Your task to perform on an android device: uninstall "Messenger Lite" Image 0: 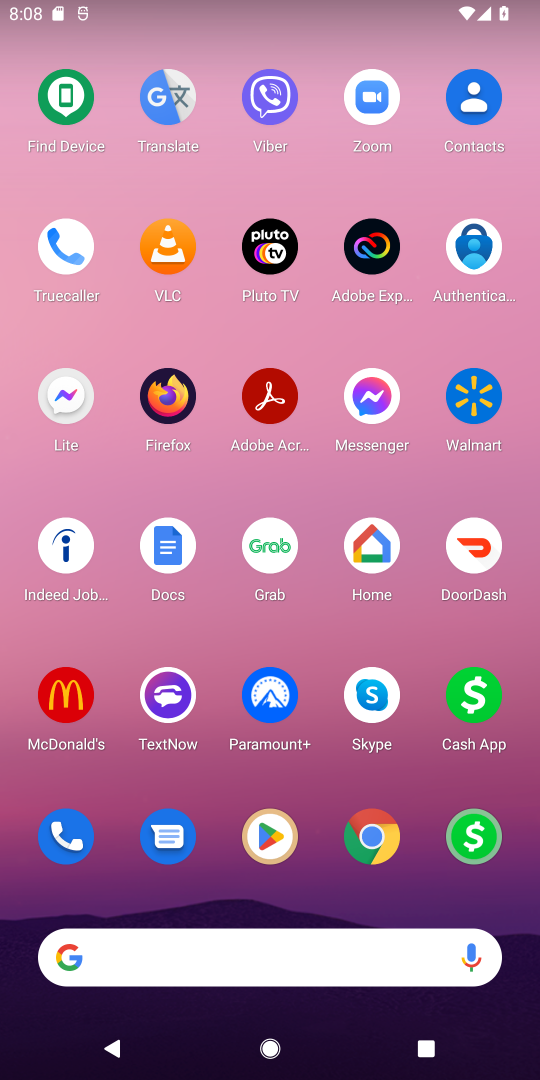
Step 0: press home button
Your task to perform on an android device: uninstall "Messenger Lite" Image 1: 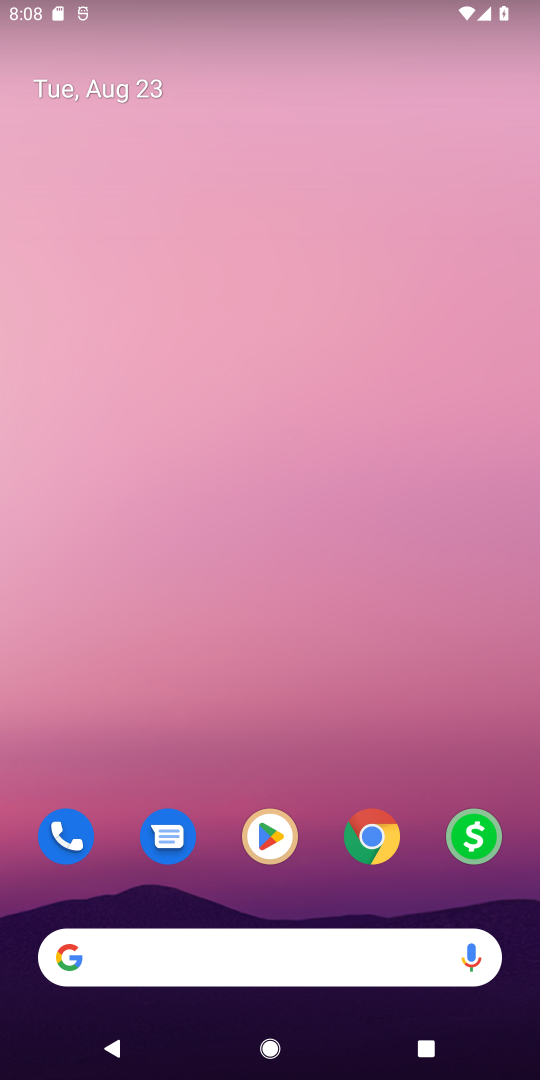
Step 1: click (274, 843)
Your task to perform on an android device: uninstall "Messenger Lite" Image 2: 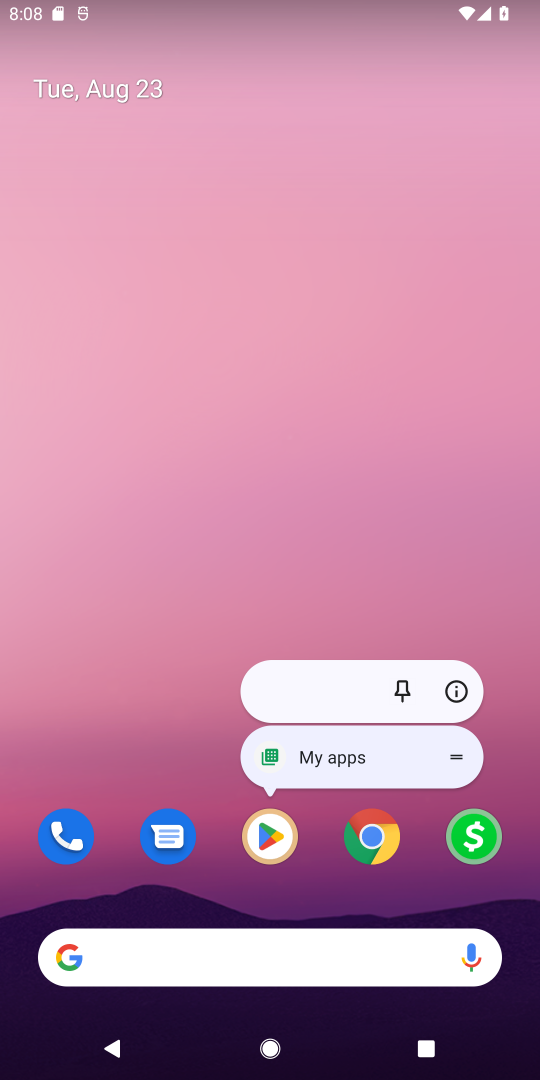
Step 2: click (274, 843)
Your task to perform on an android device: uninstall "Messenger Lite" Image 3: 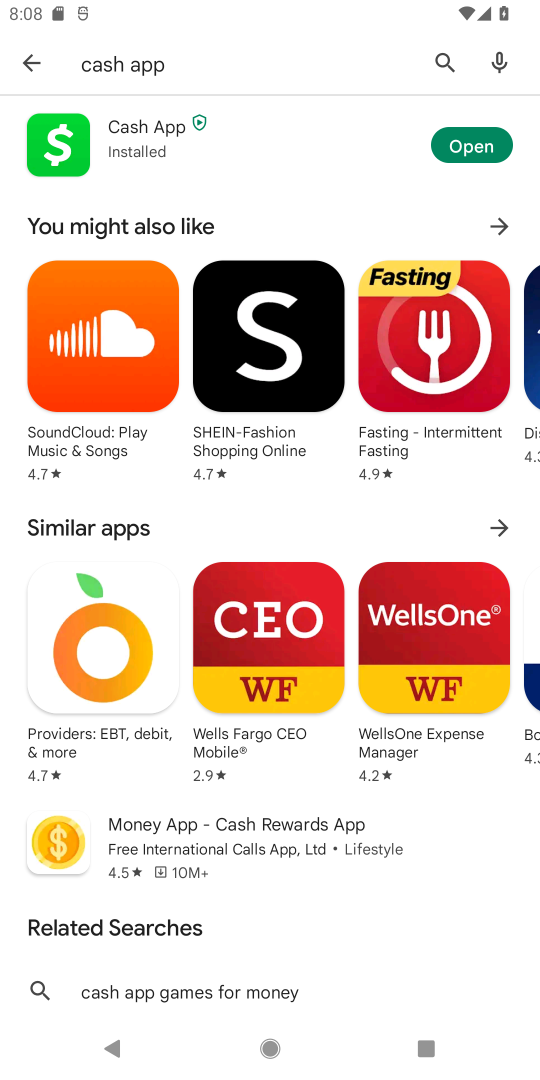
Step 3: click (443, 62)
Your task to perform on an android device: uninstall "Messenger Lite" Image 4: 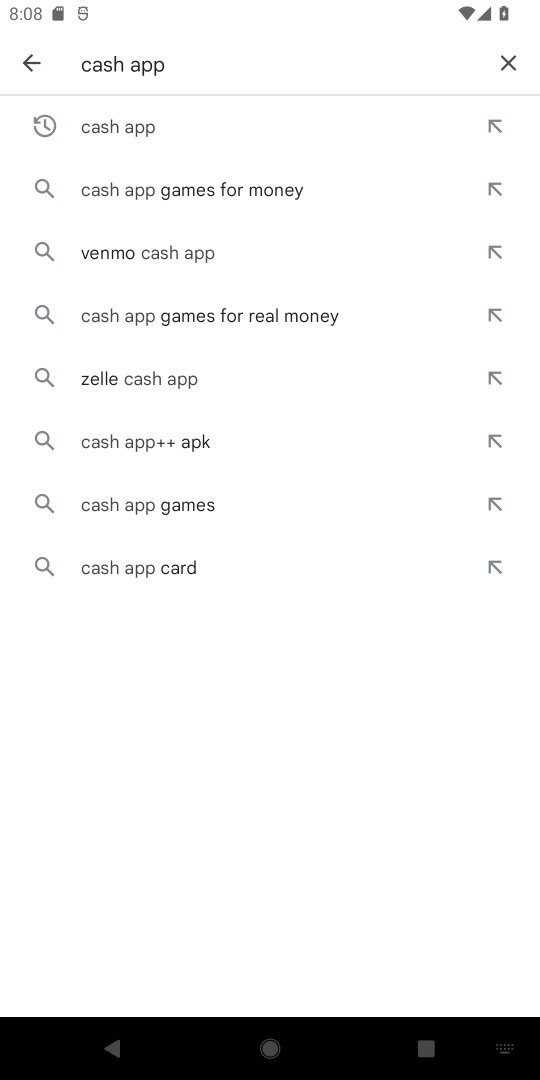
Step 4: click (504, 64)
Your task to perform on an android device: uninstall "Messenger Lite" Image 5: 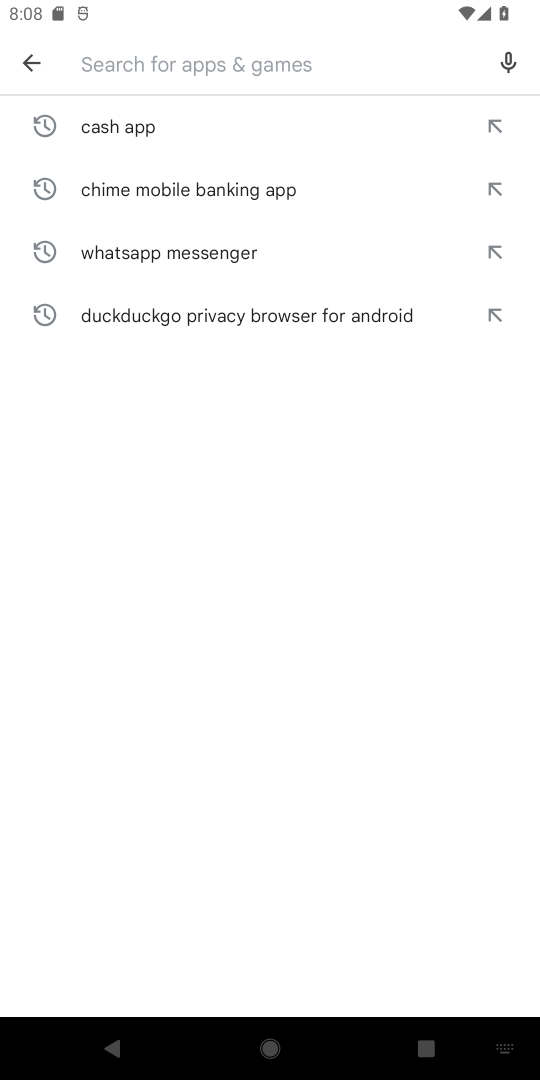
Step 5: type "Messenger Lite"
Your task to perform on an android device: uninstall "Messenger Lite" Image 6: 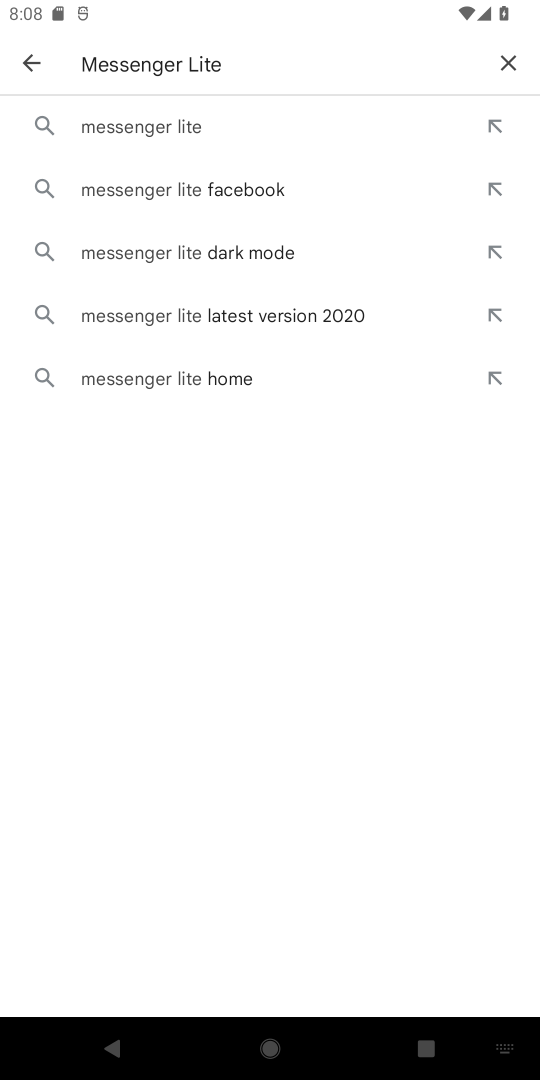
Step 6: click (161, 127)
Your task to perform on an android device: uninstall "Messenger Lite" Image 7: 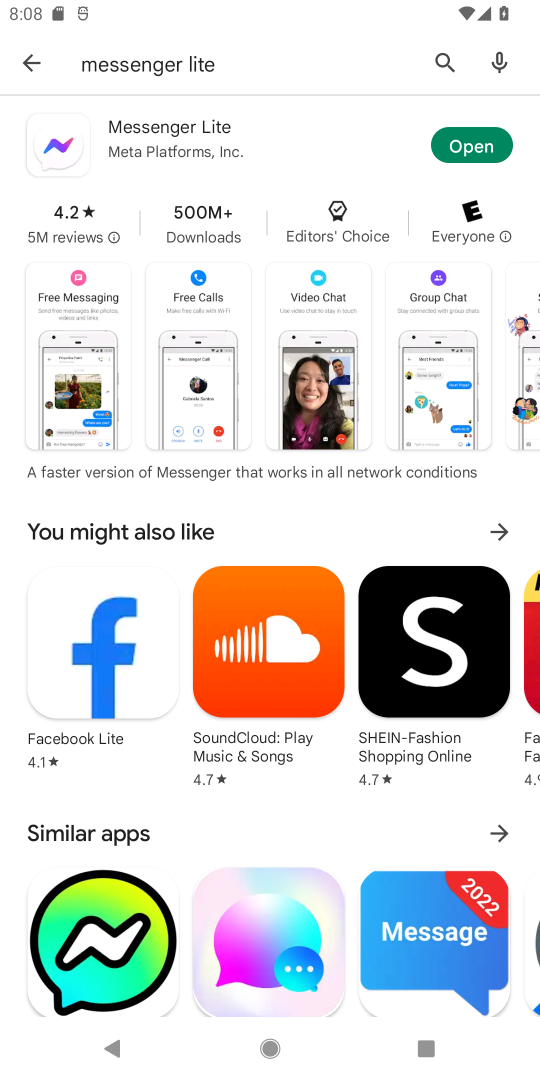
Step 7: click (144, 131)
Your task to perform on an android device: uninstall "Messenger Lite" Image 8: 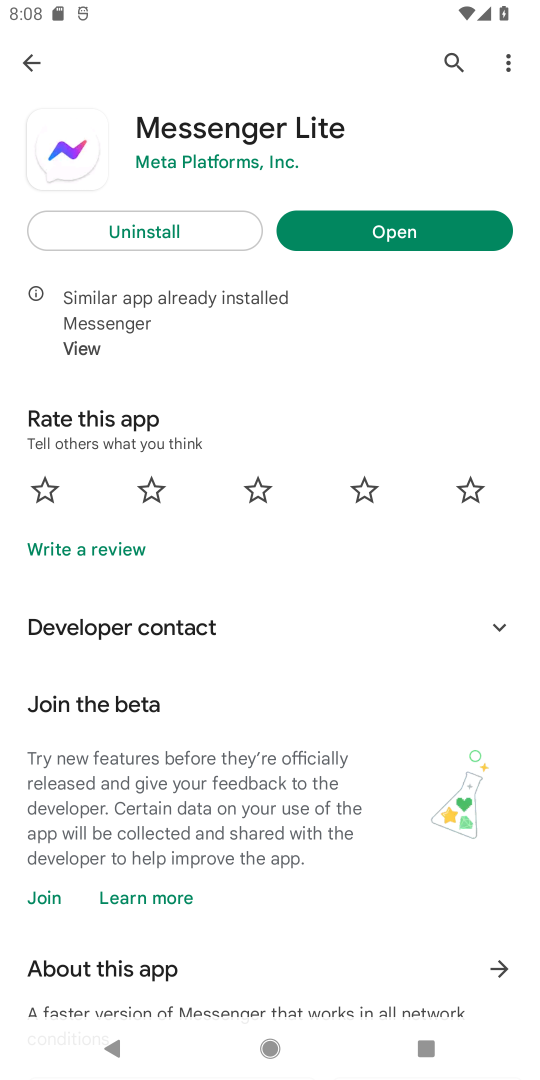
Step 8: click (147, 233)
Your task to perform on an android device: uninstall "Messenger Lite" Image 9: 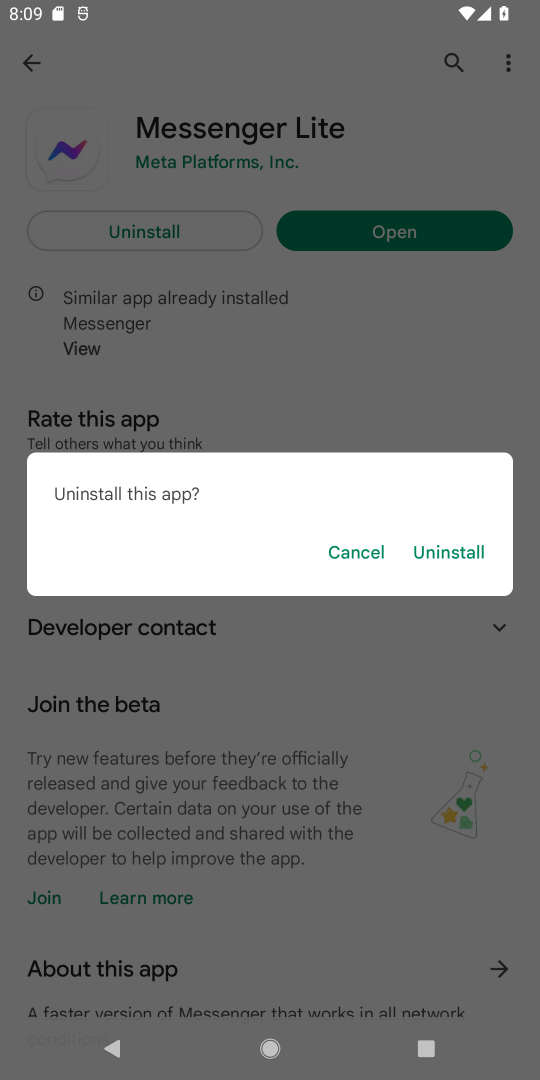
Step 9: click (444, 551)
Your task to perform on an android device: uninstall "Messenger Lite" Image 10: 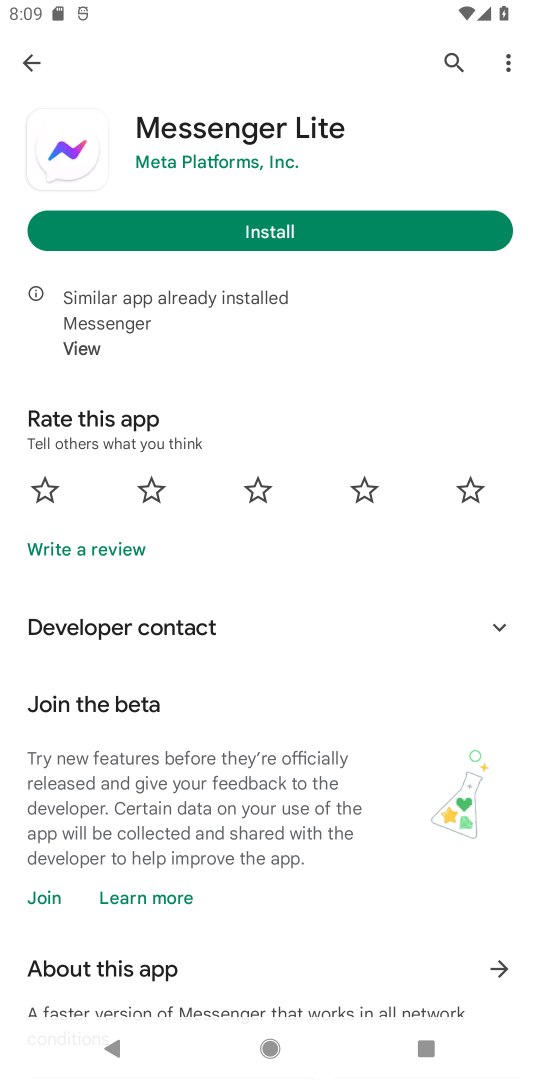
Step 10: task complete